Your task to perform on an android device: Open the phone app and click the voicemail tab. Image 0: 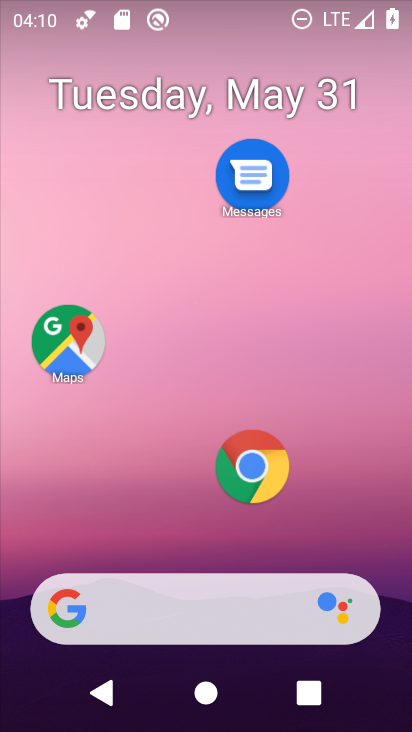
Step 0: drag from (133, 471) to (178, 79)
Your task to perform on an android device: Open the phone app and click the voicemail tab. Image 1: 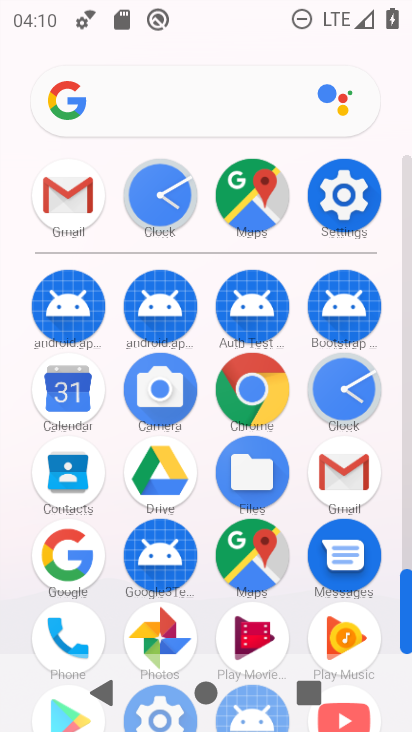
Step 1: click (52, 628)
Your task to perform on an android device: Open the phone app and click the voicemail tab. Image 2: 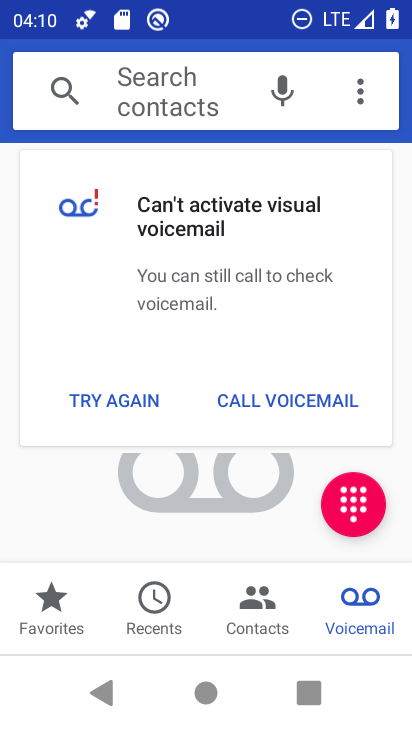
Step 2: click (365, 606)
Your task to perform on an android device: Open the phone app and click the voicemail tab. Image 3: 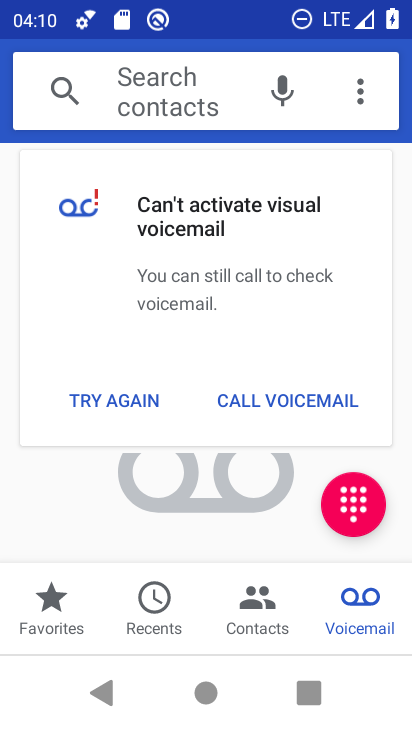
Step 3: task complete